Your task to perform on an android device: open chrome privacy settings Image 0: 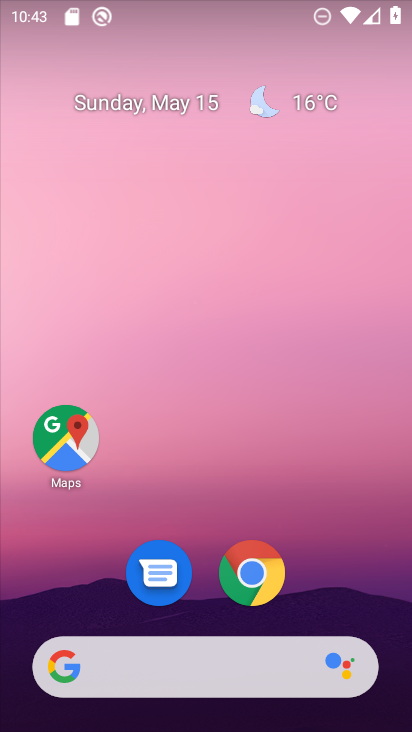
Step 0: click (254, 577)
Your task to perform on an android device: open chrome privacy settings Image 1: 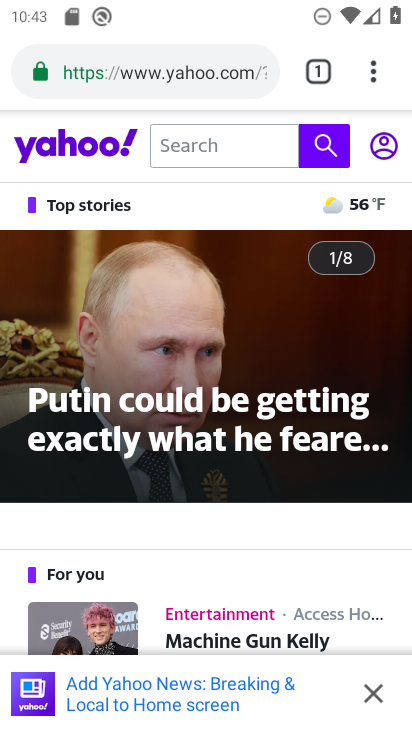
Step 1: drag from (365, 58) to (139, 578)
Your task to perform on an android device: open chrome privacy settings Image 2: 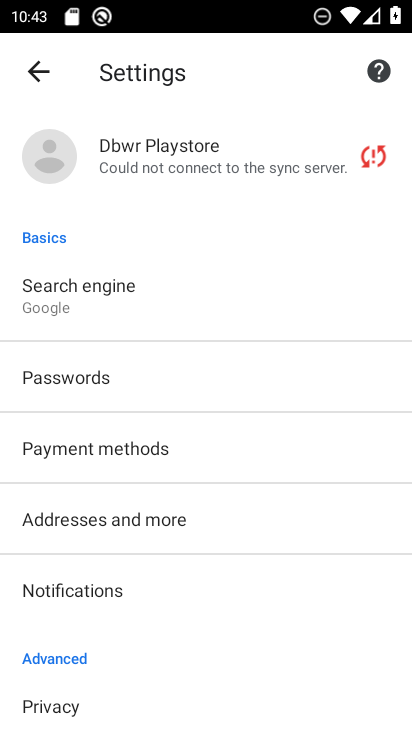
Step 2: click (74, 698)
Your task to perform on an android device: open chrome privacy settings Image 3: 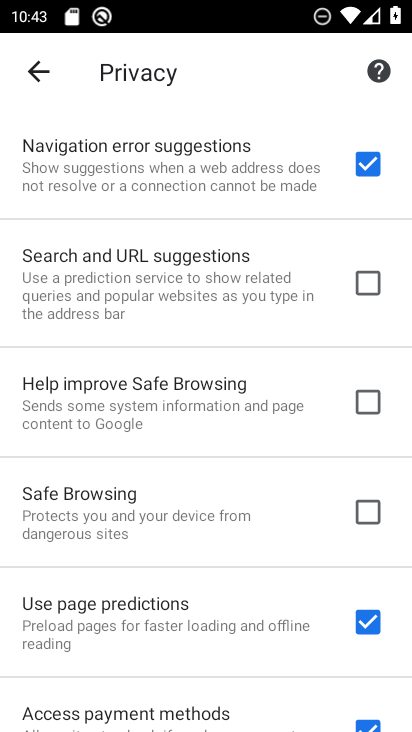
Step 3: task complete